Your task to perform on an android device: Search for duracell triple a on walmart.com, select the first entry, add it to the cart, then select checkout. Image 0: 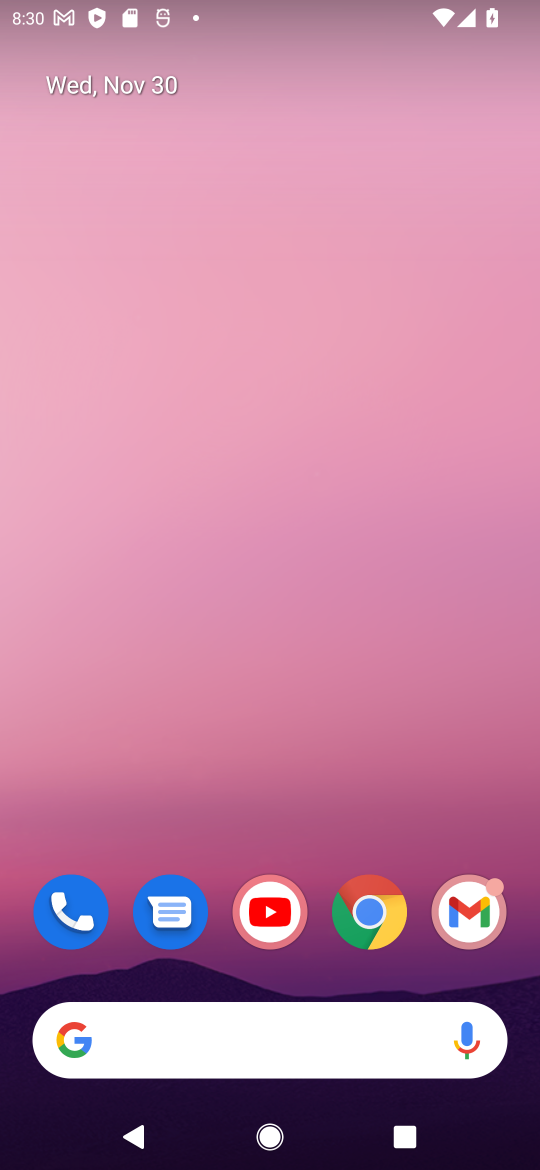
Step 0: click (279, 1055)
Your task to perform on an android device: Search for duracell triple a on walmart.com, select the first entry, add it to the cart, then select checkout. Image 1: 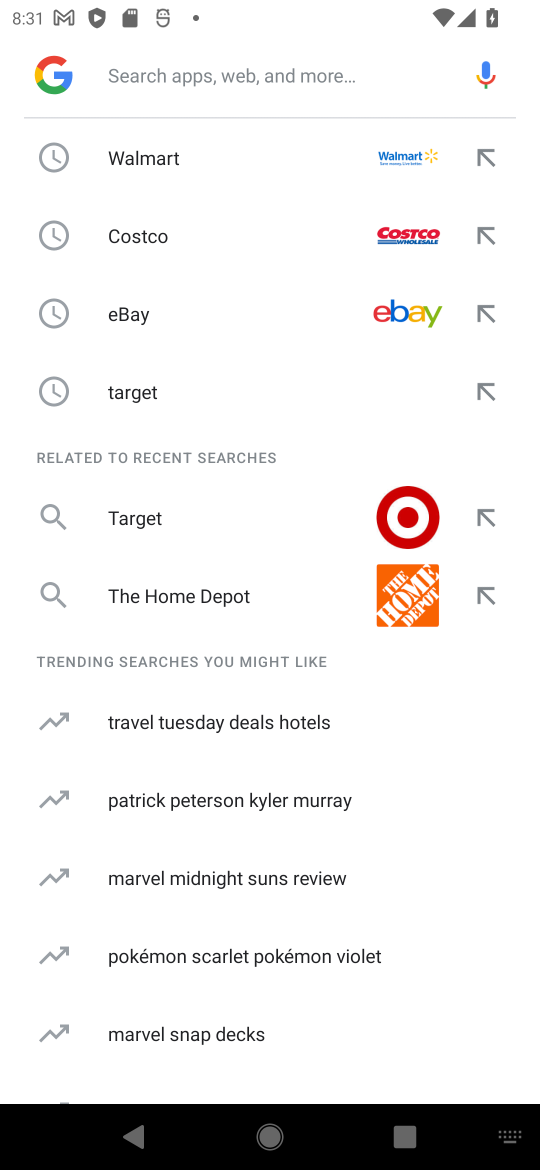
Step 1: click (170, 167)
Your task to perform on an android device: Search for duracell triple a on walmart.com, select the first entry, add it to the cart, then select checkout. Image 2: 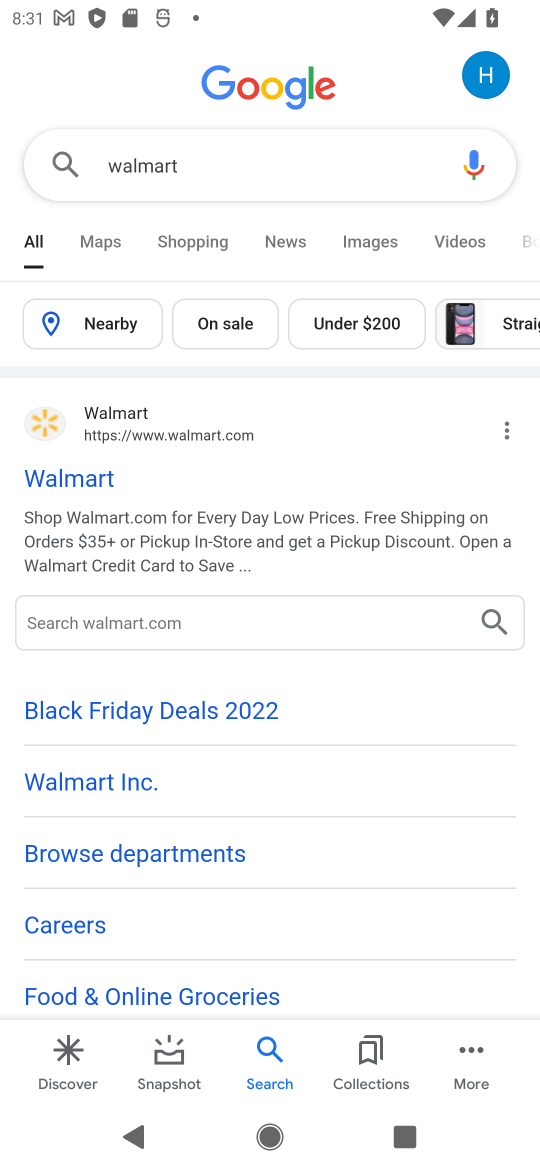
Step 2: click (81, 463)
Your task to perform on an android device: Search for duracell triple a on walmart.com, select the first entry, add it to the cart, then select checkout. Image 3: 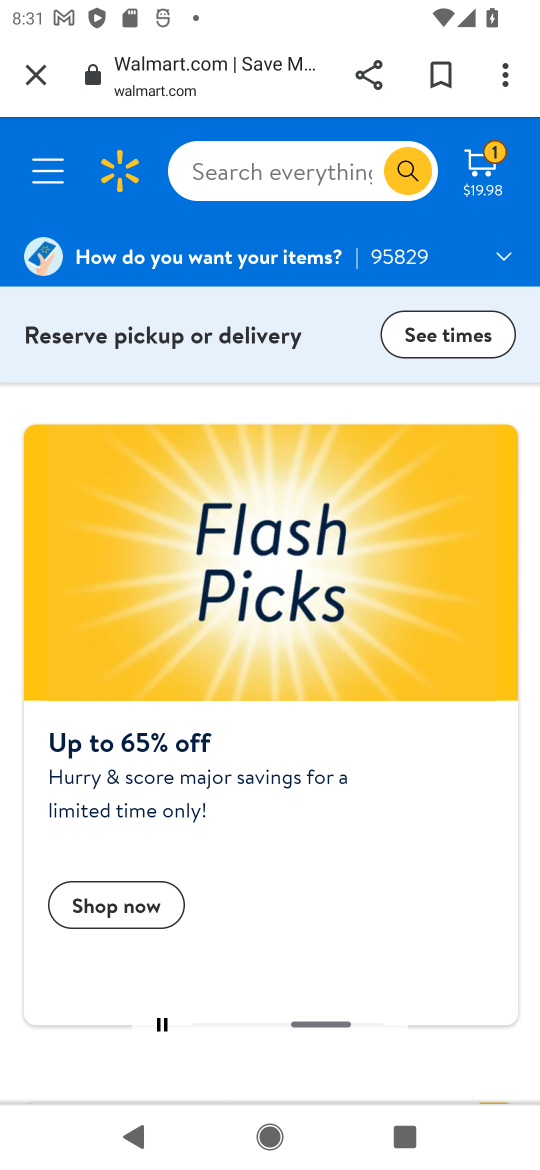
Step 3: click (265, 154)
Your task to perform on an android device: Search for duracell triple a on walmart.com, select the first entry, add it to the cart, then select checkout. Image 4: 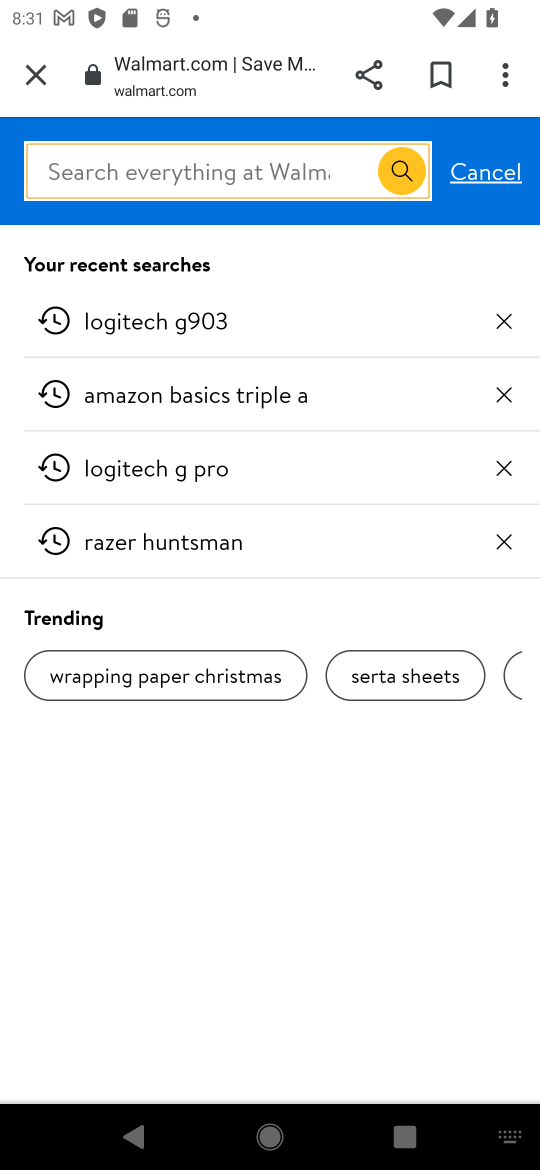
Step 4: type "duracell triple a"
Your task to perform on an android device: Search for duracell triple a on walmart.com, select the first entry, add it to the cart, then select checkout. Image 5: 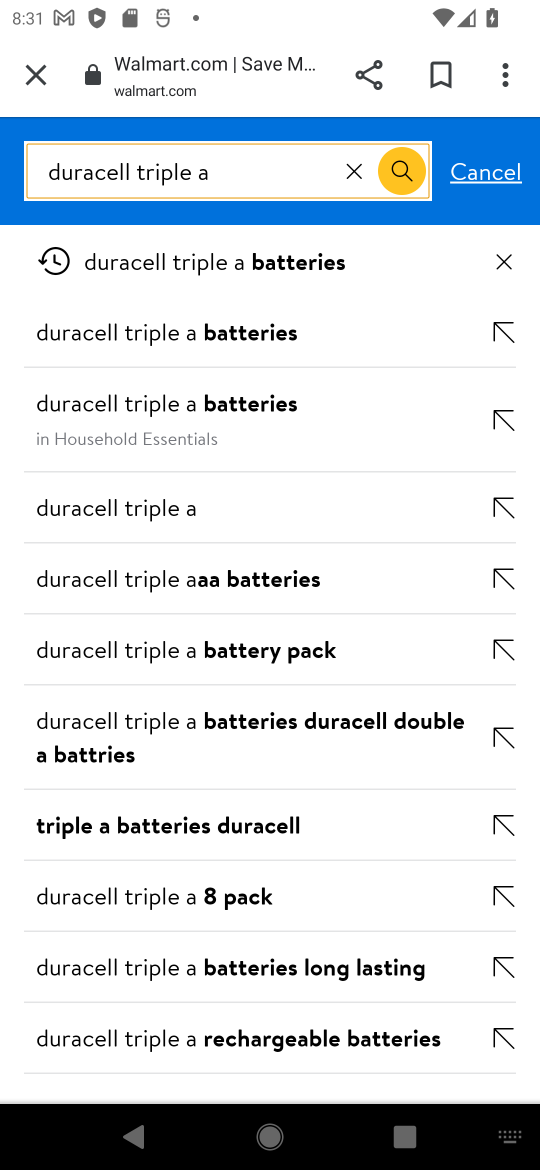
Step 5: click (274, 255)
Your task to perform on an android device: Search for duracell triple a on walmart.com, select the first entry, add it to the cart, then select checkout. Image 6: 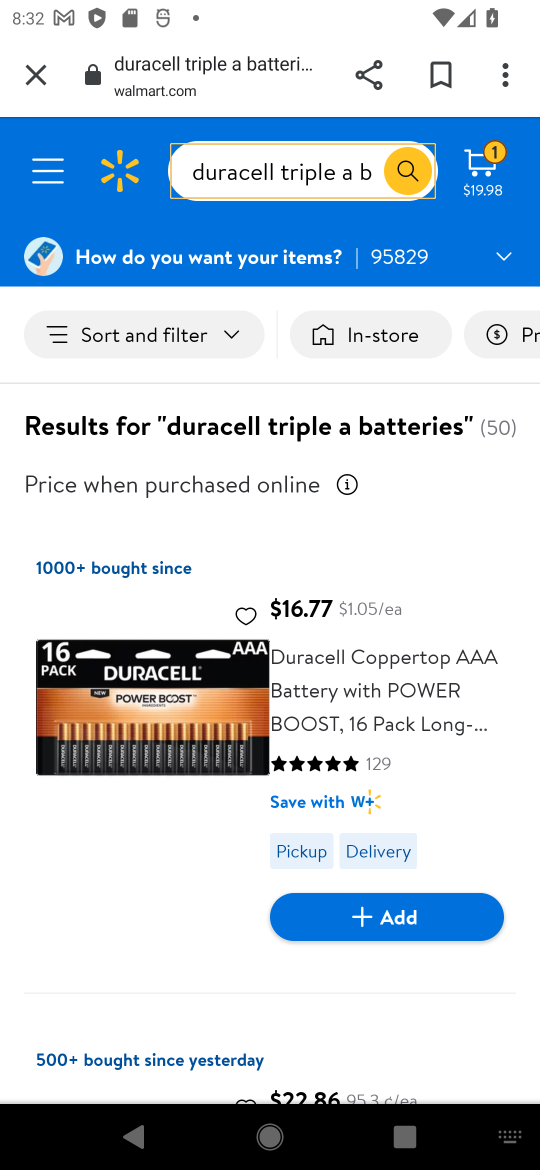
Step 6: click (374, 909)
Your task to perform on an android device: Search for duracell triple a on walmart.com, select the first entry, add it to the cart, then select checkout. Image 7: 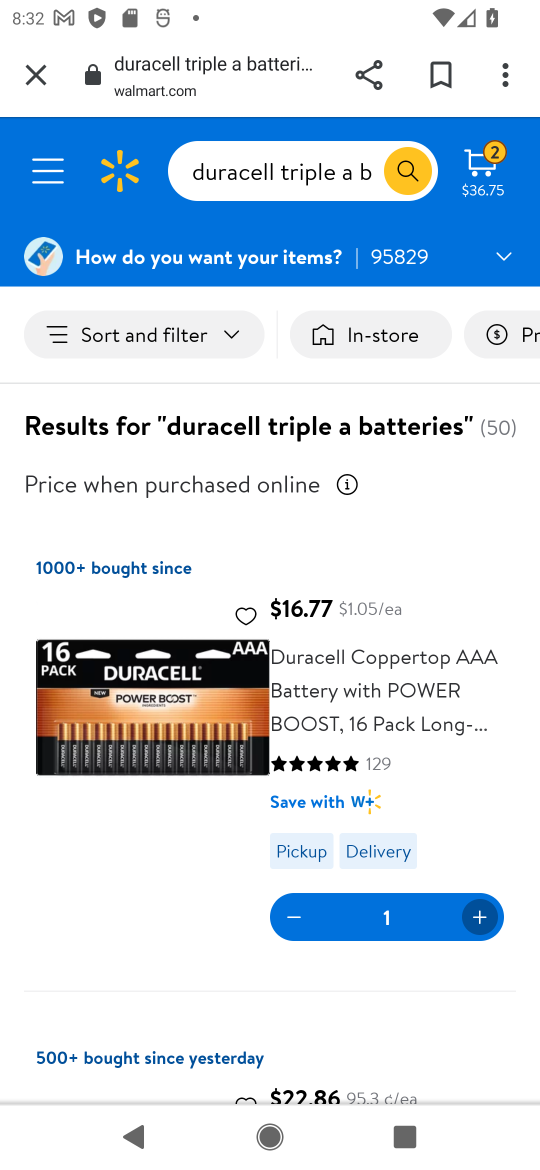
Step 7: click (491, 169)
Your task to perform on an android device: Search for duracell triple a on walmart.com, select the first entry, add it to the cart, then select checkout. Image 8: 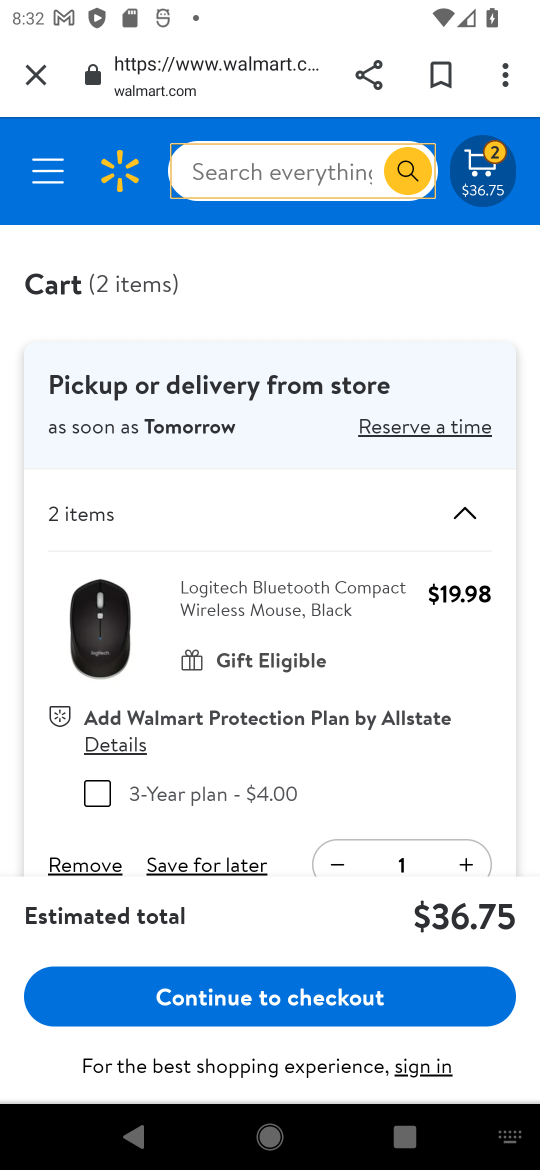
Step 8: click (270, 990)
Your task to perform on an android device: Search for duracell triple a on walmart.com, select the first entry, add it to the cart, then select checkout. Image 9: 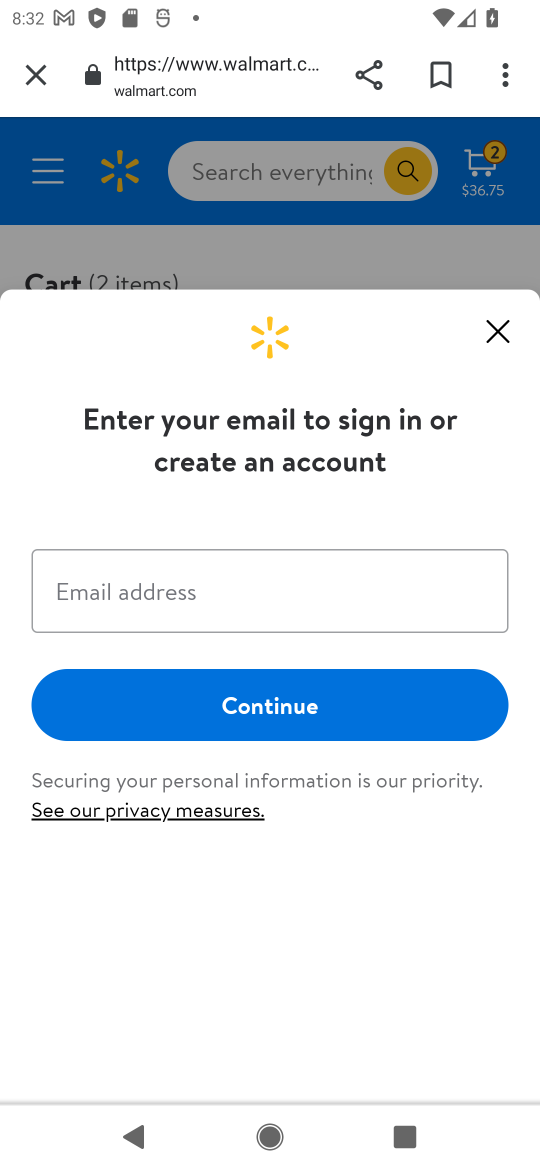
Step 9: task complete